Your task to perform on an android device: Go to internet settings Image 0: 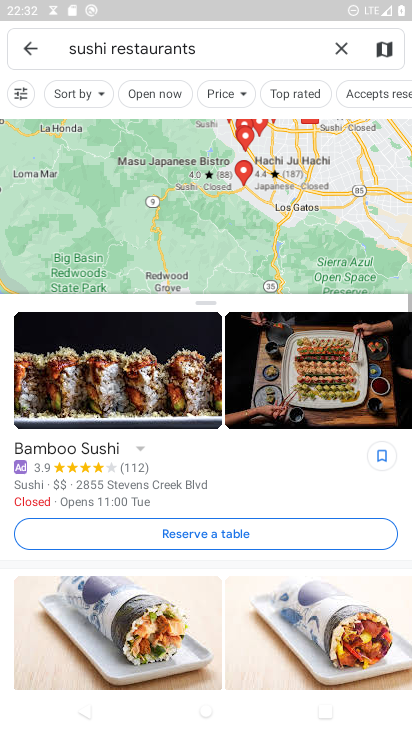
Step 0: press home button
Your task to perform on an android device: Go to internet settings Image 1: 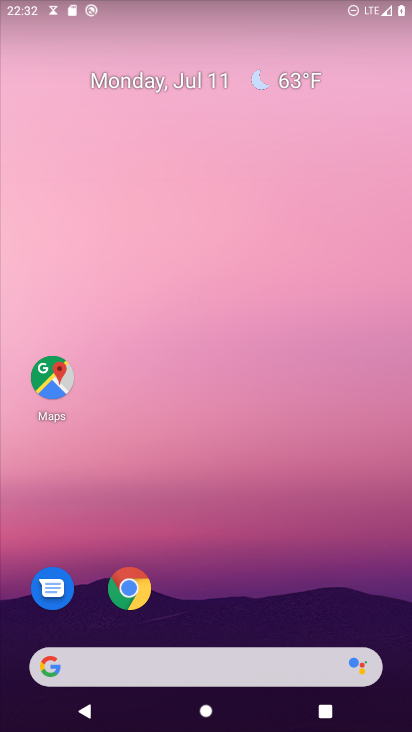
Step 1: drag from (207, 620) to (164, 172)
Your task to perform on an android device: Go to internet settings Image 2: 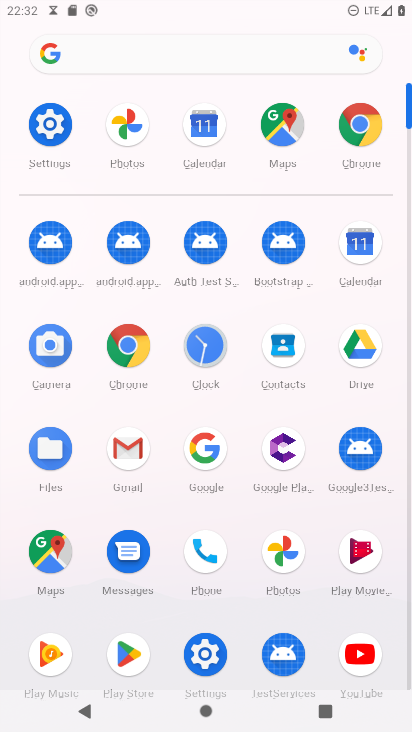
Step 2: click (44, 122)
Your task to perform on an android device: Go to internet settings Image 3: 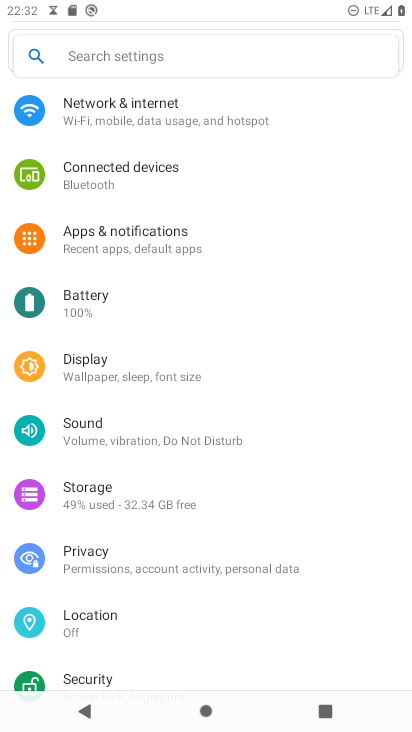
Step 3: click (147, 115)
Your task to perform on an android device: Go to internet settings Image 4: 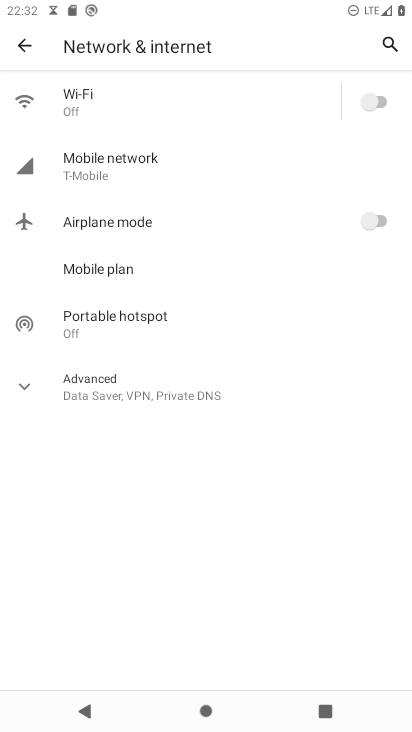
Step 4: task complete